Your task to perform on an android device: turn on sleep mode Image 0: 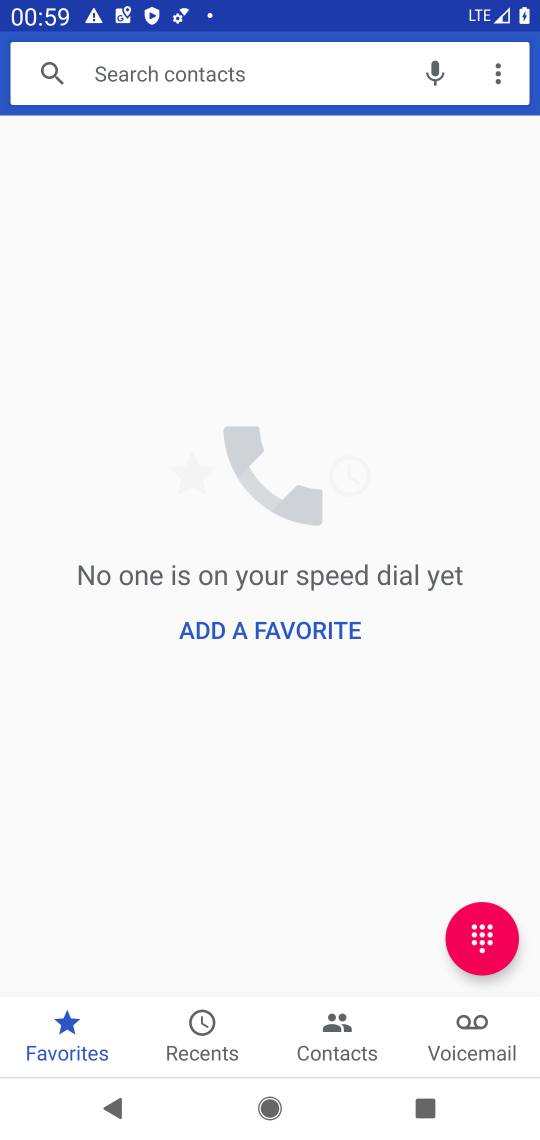
Step 0: press home button
Your task to perform on an android device: turn on sleep mode Image 1: 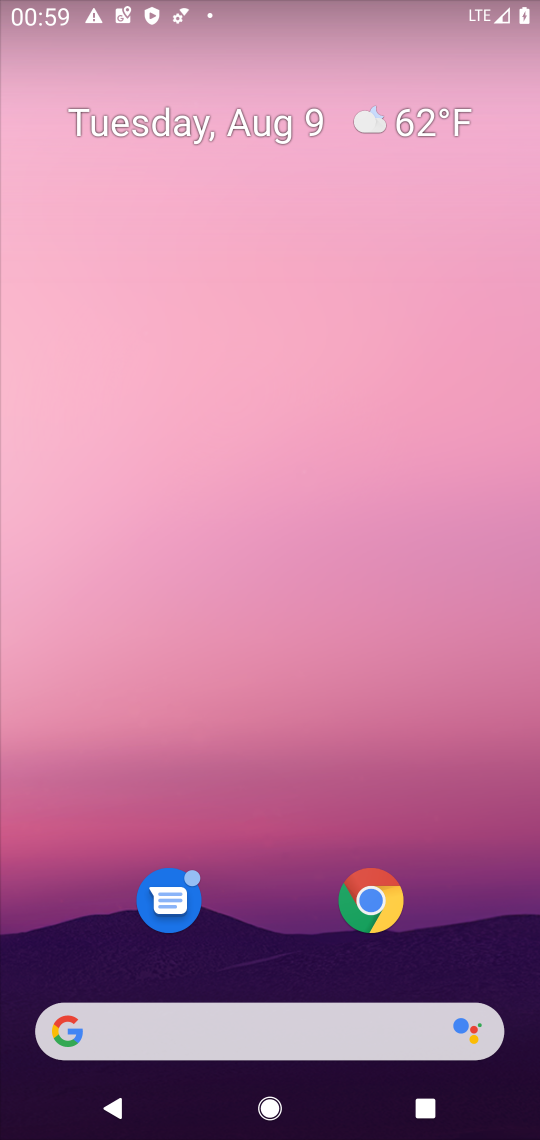
Step 1: drag from (456, 915) to (459, 138)
Your task to perform on an android device: turn on sleep mode Image 2: 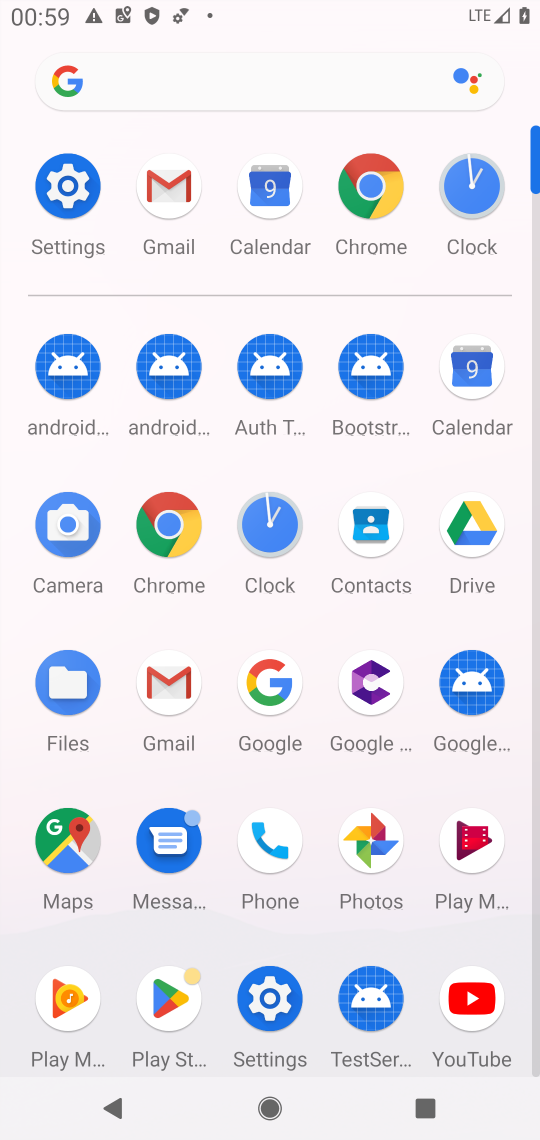
Step 2: click (59, 182)
Your task to perform on an android device: turn on sleep mode Image 3: 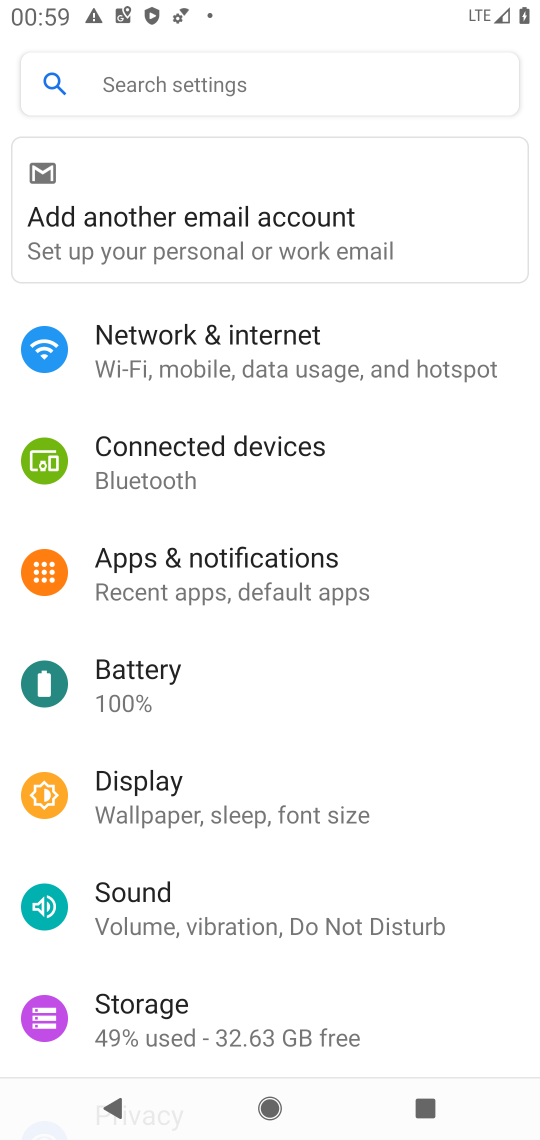
Step 3: drag from (465, 962) to (487, 578)
Your task to perform on an android device: turn on sleep mode Image 4: 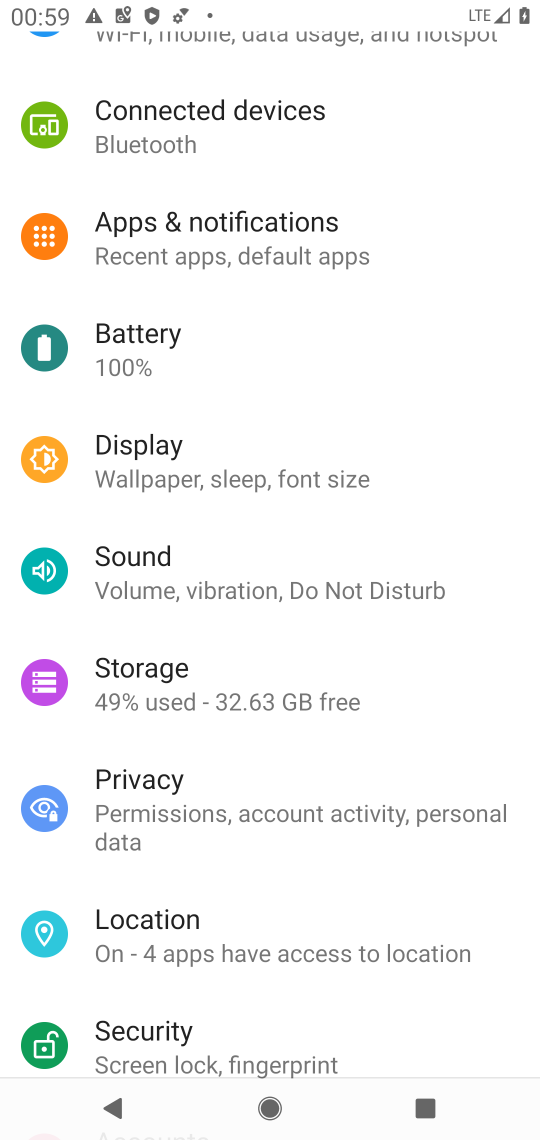
Step 4: drag from (442, 874) to (467, 644)
Your task to perform on an android device: turn on sleep mode Image 5: 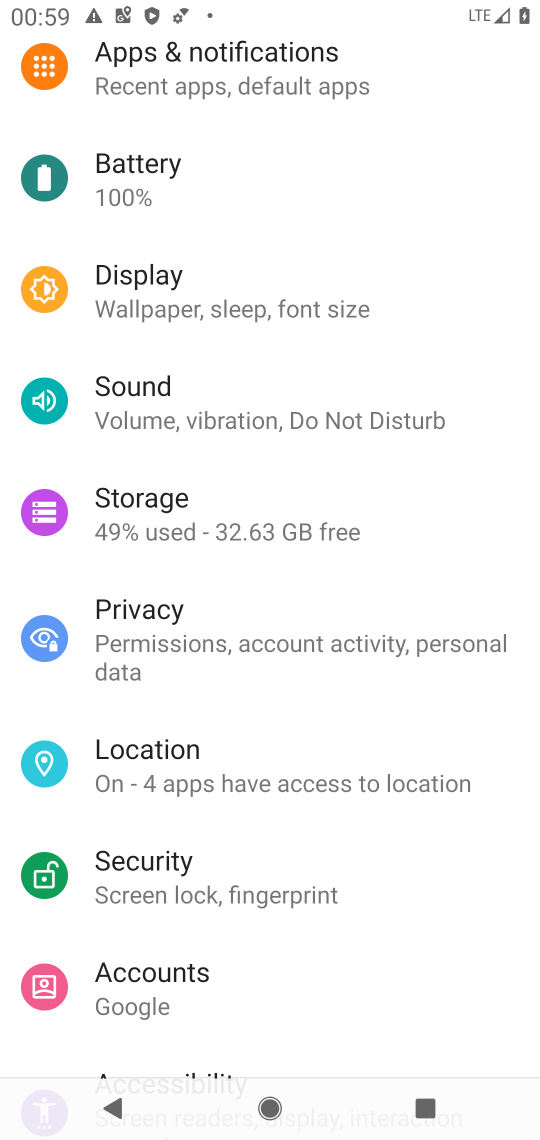
Step 5: drag from (421, 960) to (475, 530)
Your task to perform on an android device: turn on sleep mode Image 6: 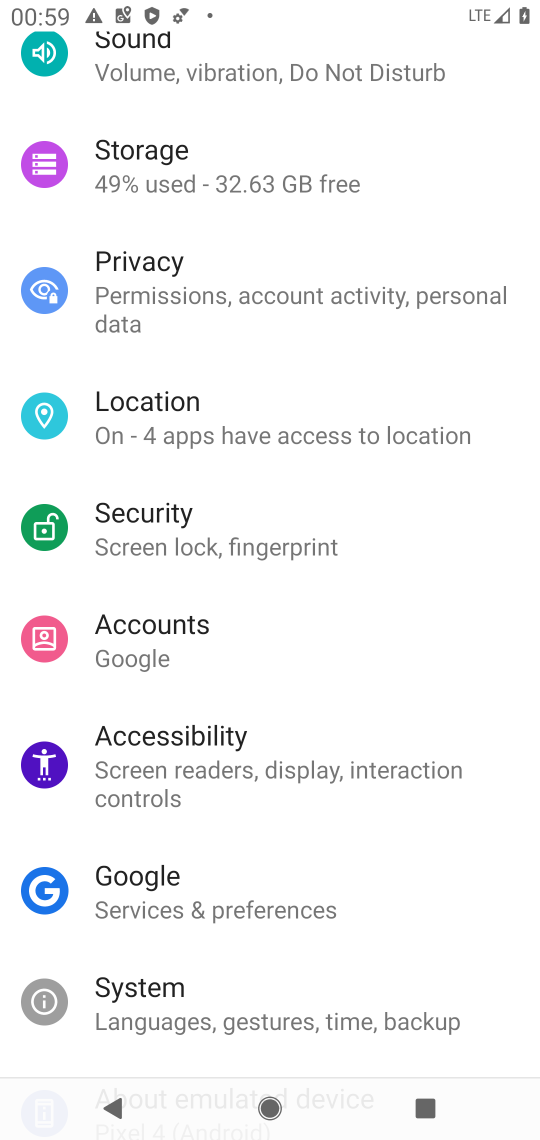
Step 6: drag from (387, 958) to (451, 468)
Your task to perform on an android device: turn on sleep mode Image 7: 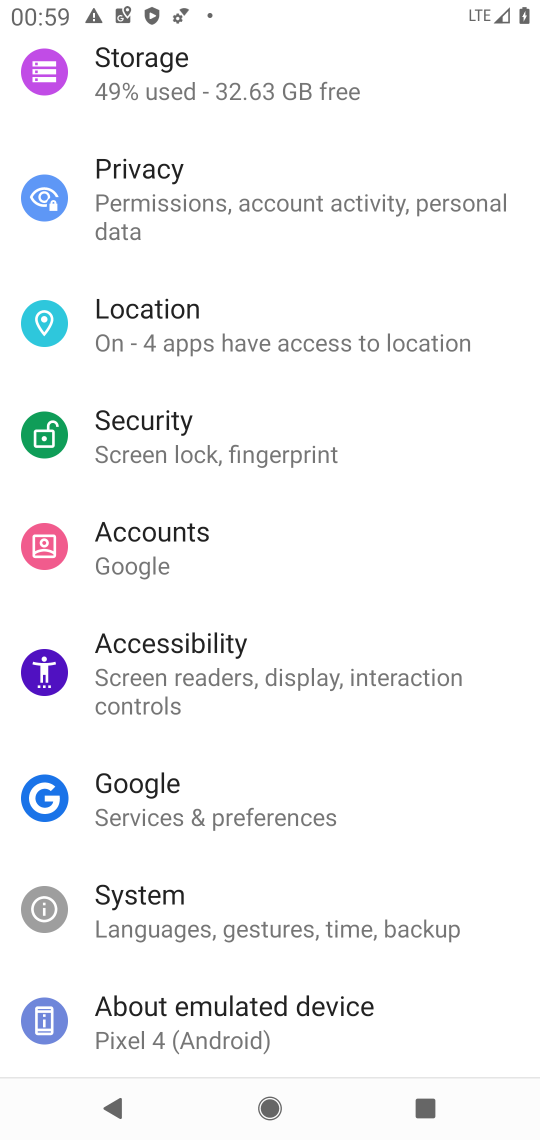
Step 7: drag from (474, 366) to (477, 700)
Your task to perform on an android device: turn on sleep mode Image 8: 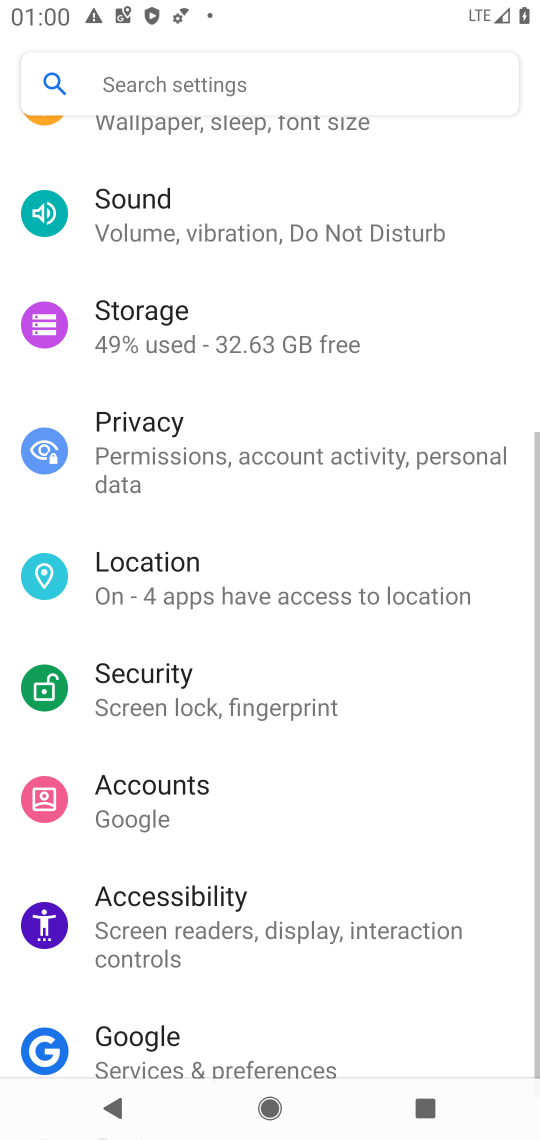
Step 8: drag from (496, 258) to (474, 592)
Your task to perform on an android device: turn on sleep mode Image 9: 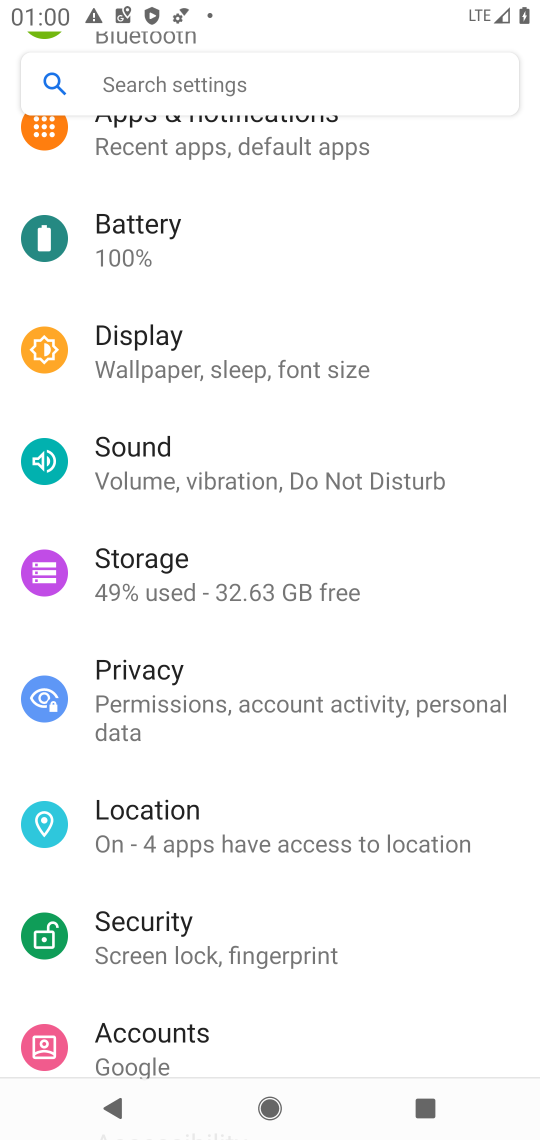
Step 9: drag from (471, 243) to (442, 624)
Your task to perform on an android device: turn on sleep mode Image 10: 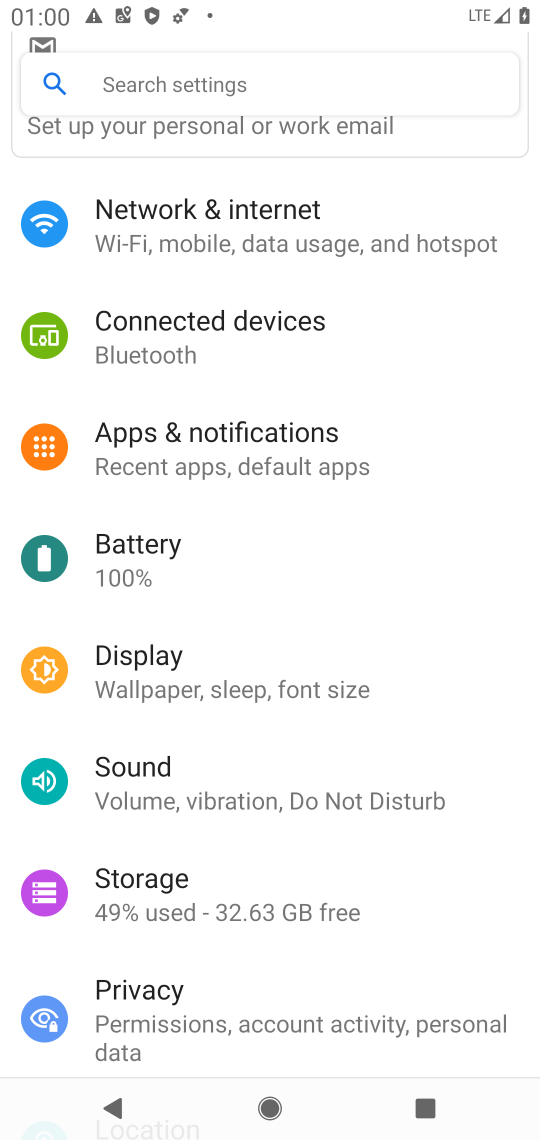
Step 10: drag from (482, 291) to (471, 602)
Your task to perform on an android device: turn on sleep mode Image 11: 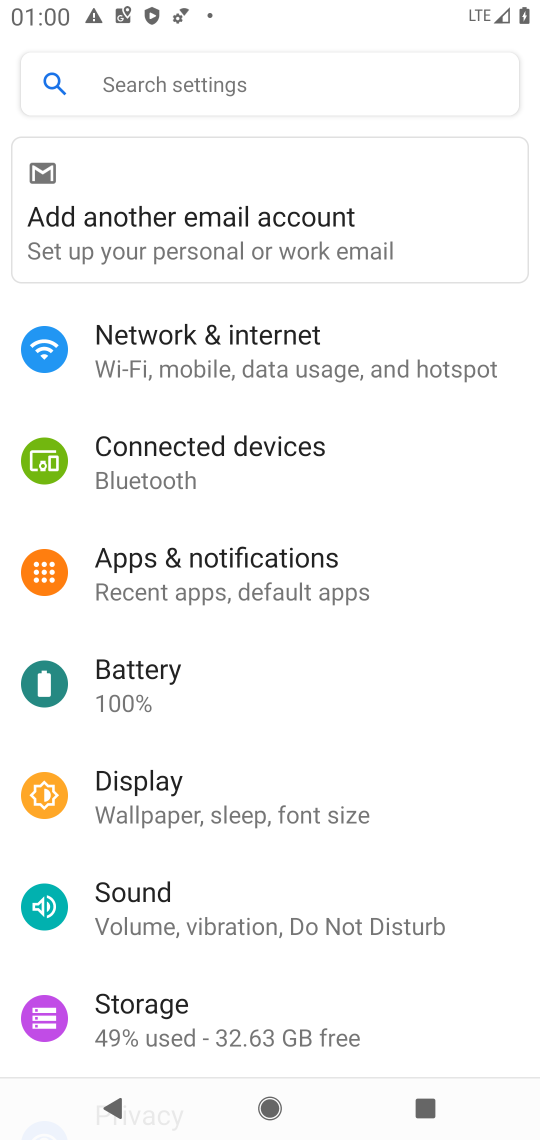
Step 11: drag from (455, 189) to (453, 575)
Your task to perform on an android device: turn on sleep mode Image 12: 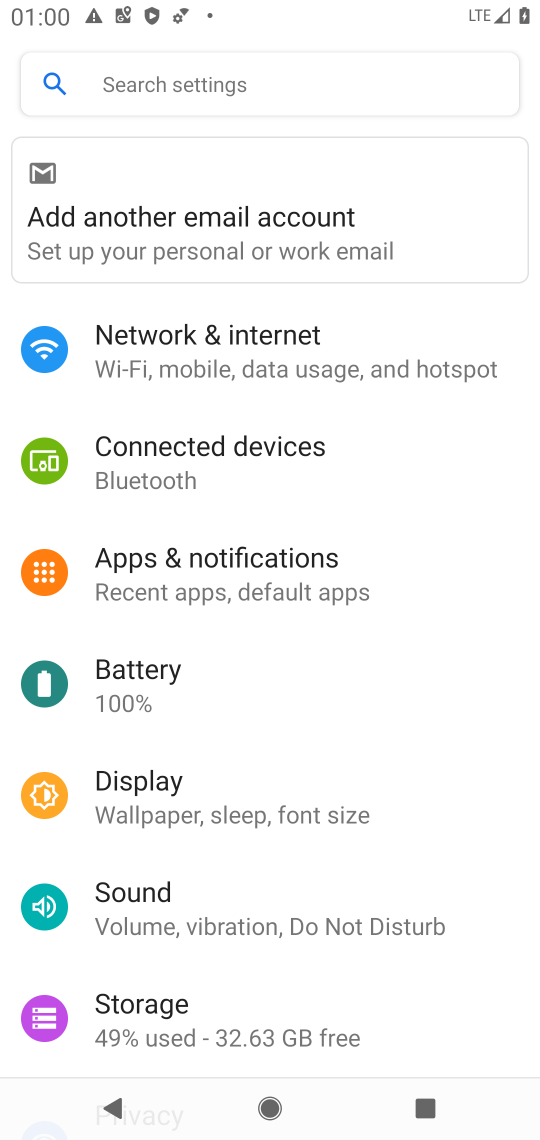
Step 12: click (193, 809)
Your task to perform on an android device: turn on sleep mode Image 13: 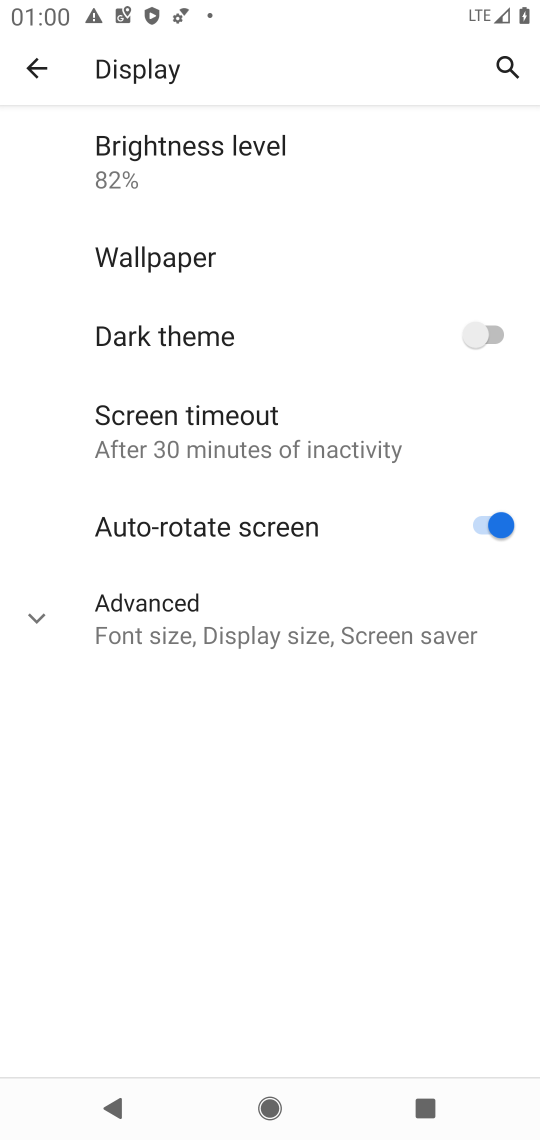
Step 13: click (243, 626)
Your task to perform on an android device: turn on sleep mode Image 14: 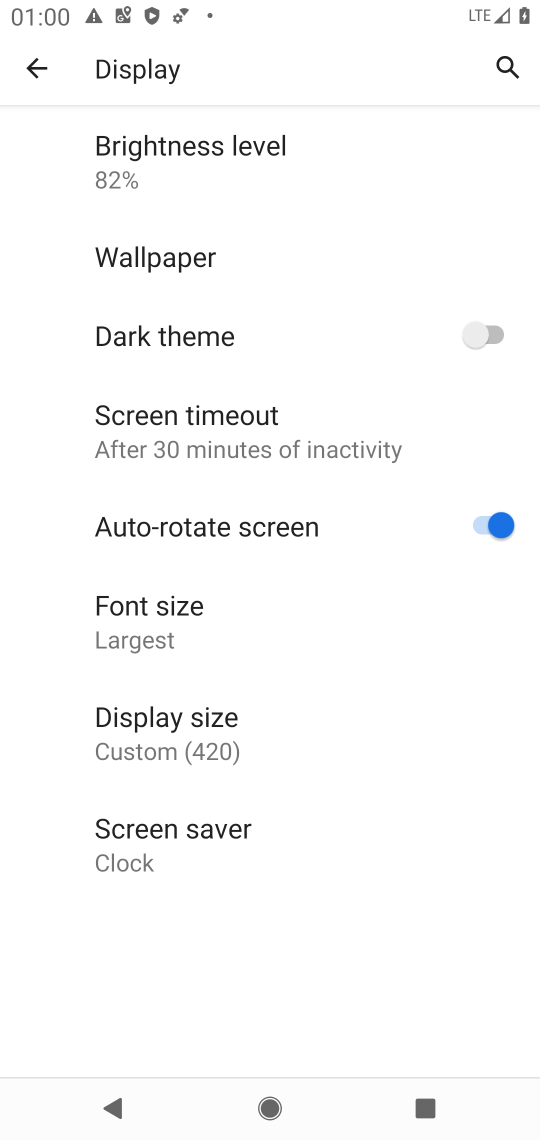
Step 14: task complete